Your task to perform on an android device: What's the weather going to be this weekend? Image 0: 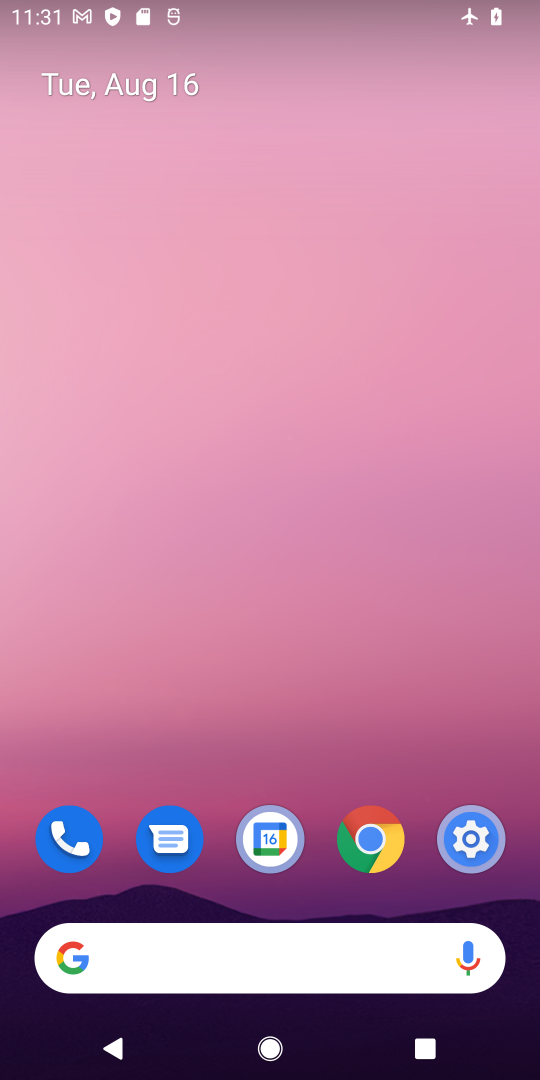
Step 0: click (210, 960)
Your task to perform on an android device: What's the weather going to be this weekend? Image 1: 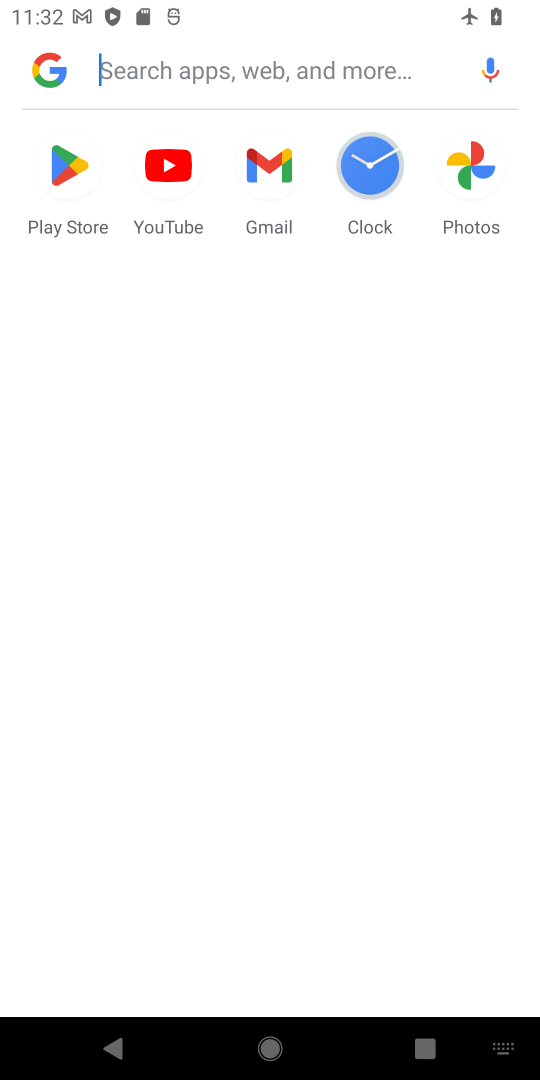
Step 1: type "weather"
Your task to perform on an android device: What's the weather going to be this weekend? Image 2: 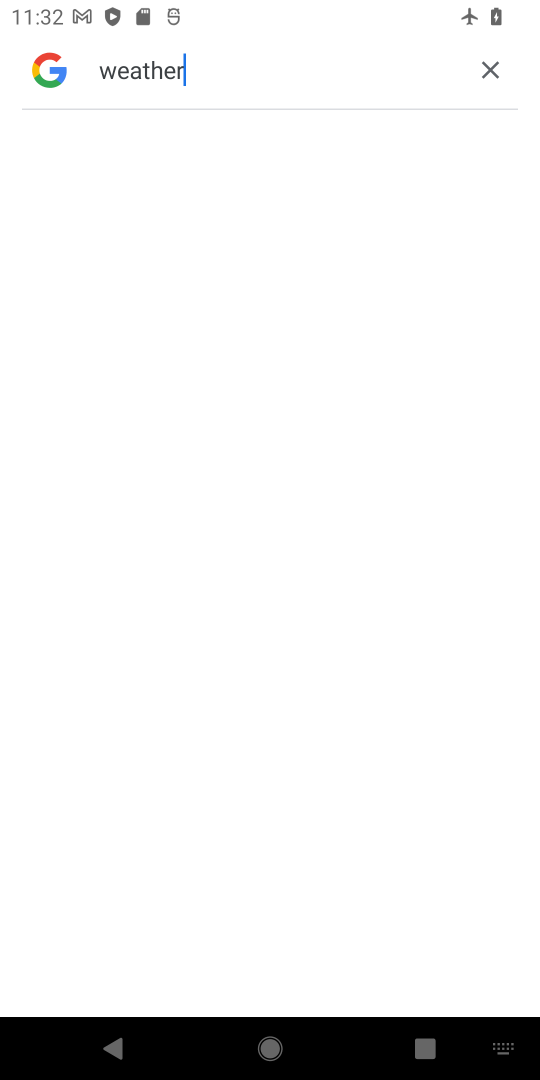
Step 2: click (120, 162)
Your task to perform on an android device: What's the weather going to be this weekend? Image 3: 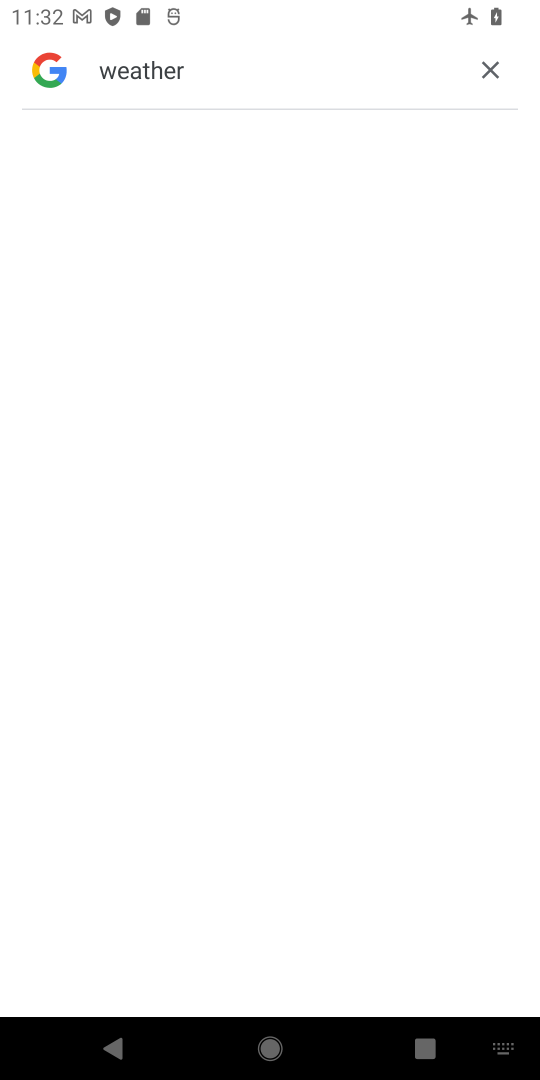
Step 3: click (175, 133)
Your task to perform on an android device: What's the weather going to be this weekend? Image 4: 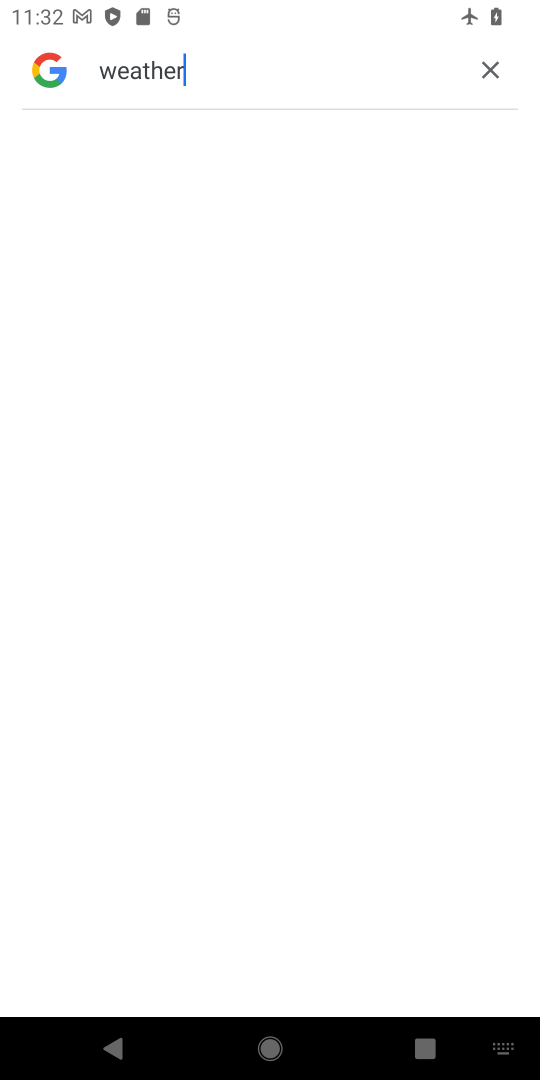
Step 4: click (177, 137)
Your task to perform on an android device: What's the weather going to be this weekend? Image 5: 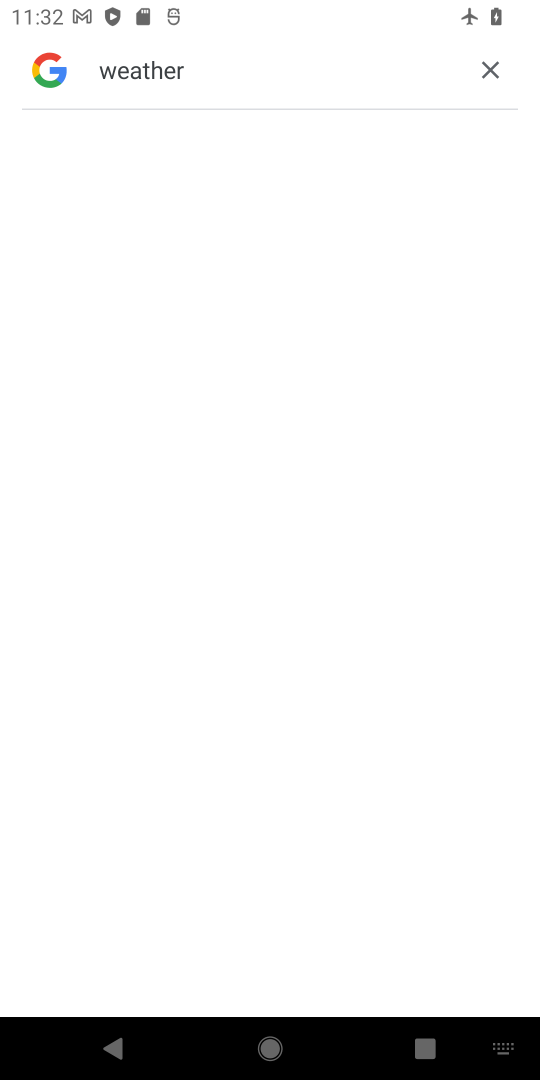
Step 5: task complete